Your task to perform on an android device: toggle sleep mode Image 0: 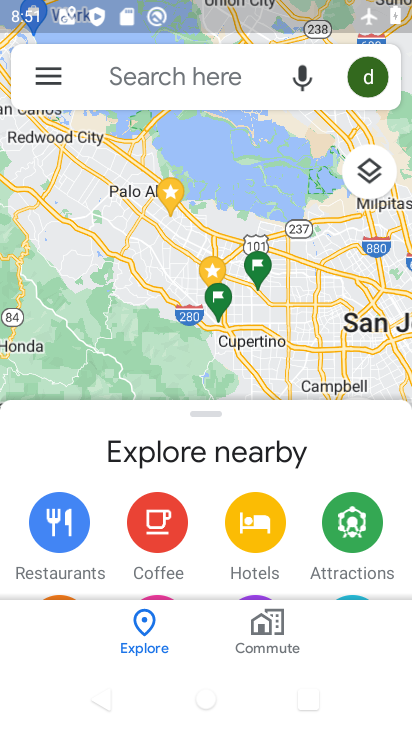
Step 0: press home button
Your task to perform on an android device: toggle sleep mode Image 1: 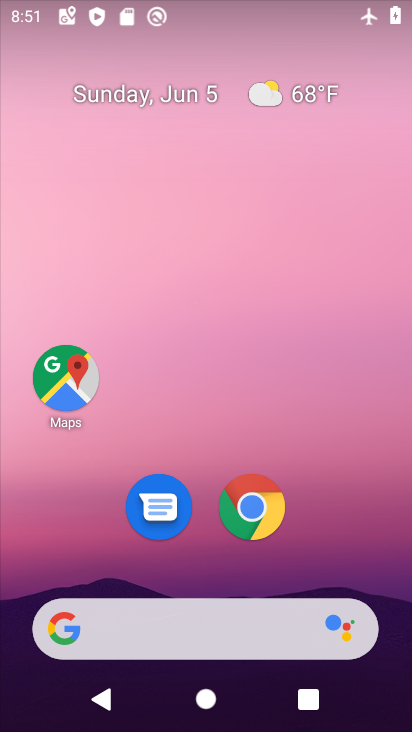
Step 1: drag from (210, 558) to (257, 0)
Your task to perform on an android device: toggle sleep mode Image 2: 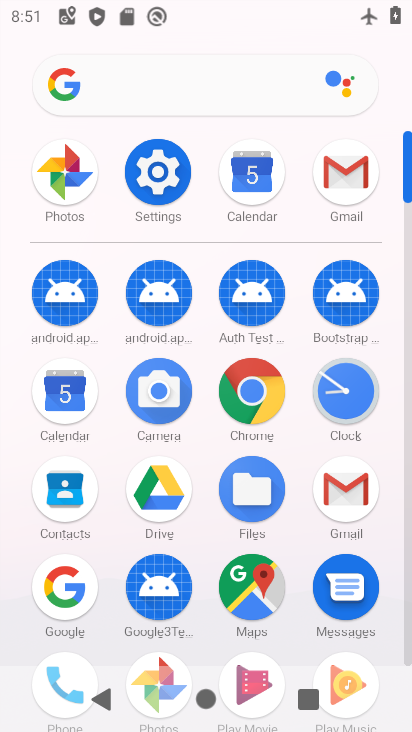
Step 2: click (156, 180)
Your task to perform on an android device: toggle sleep mode Image 3: 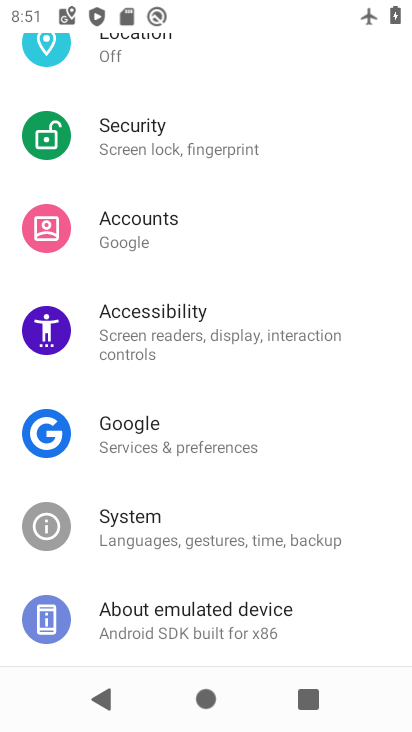
Step 3: drag from (218, 155) to (221, 571)
Your task to perform on an android device: toggle sleep mode Image 4: 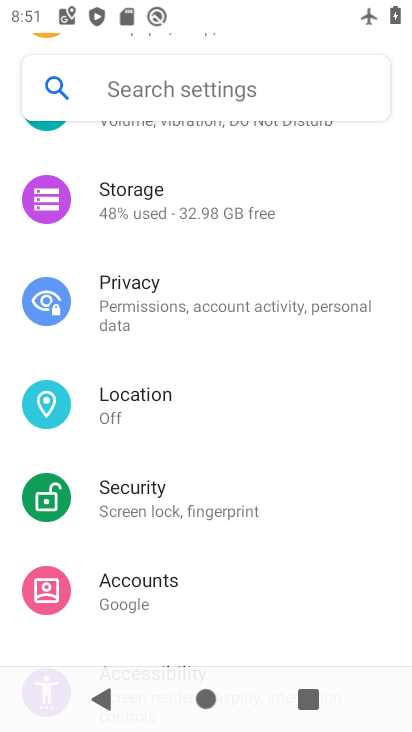
Step 4: click (232, 105)
Your task to perform on an android device: toggle sleep mode Image 5: 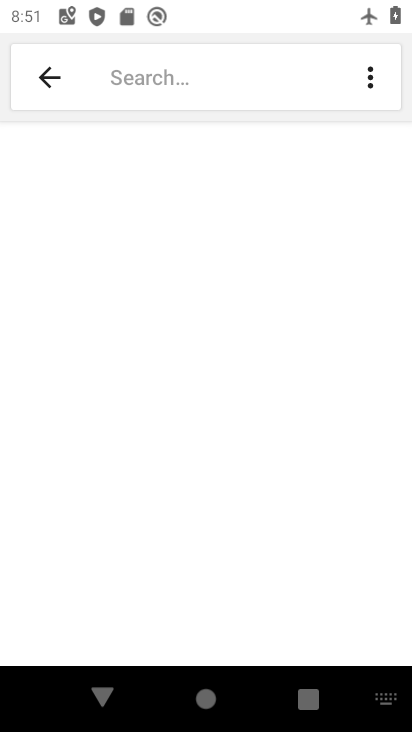
Step 5: type "sleep mode"
Your task to perform on an android device: toggle sleep mode Image 6: 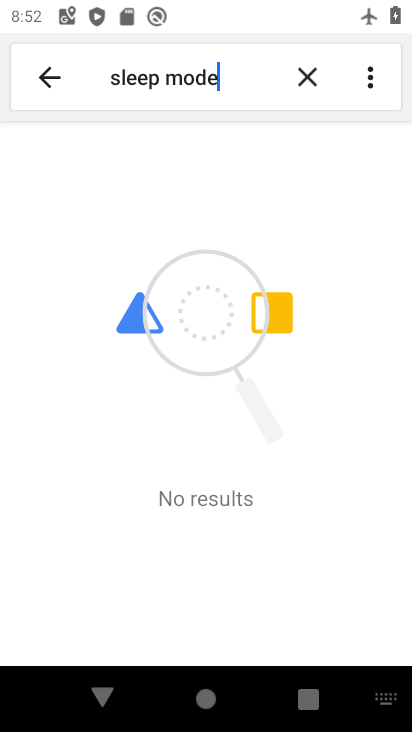
Step 6: task complete